Your task to perform on an android device: What is the news today? Image 0: 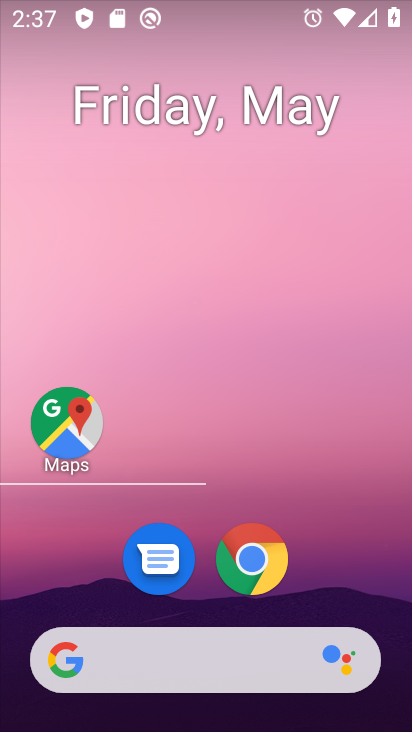
Step 0: drag from (338, 593) to (312, 267)
Your task to perform on an android device: What is the news today? Image 1: 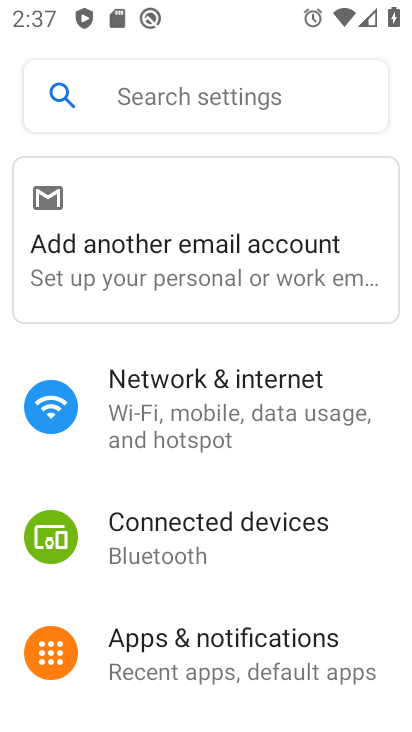
Step 1: press home button
Your task to perform on an android device: What is the news today? Image 2: 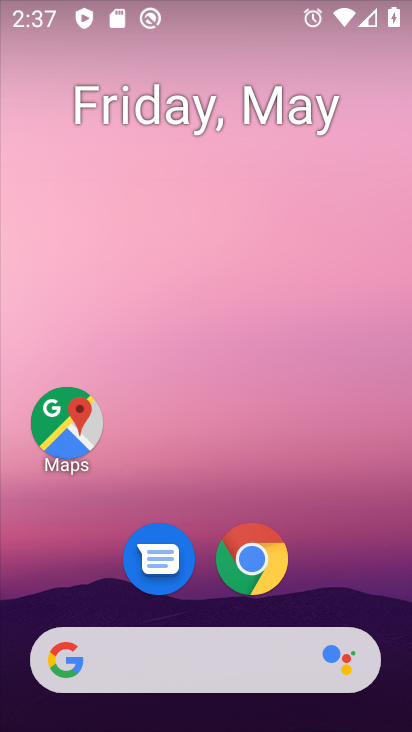
Step 2: drag from (334, 618) to (315, 230)
Your task to perform on an android device: What is the news today? Image 3: 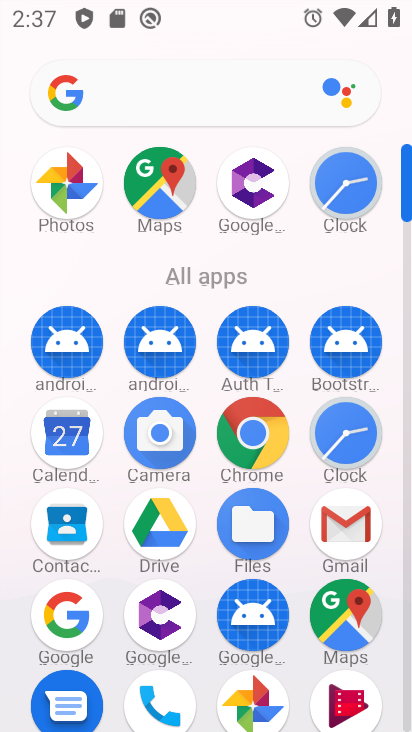
Step 3: click (402, 639)
Your task to perform on an android device: What is the news today? Image 4: 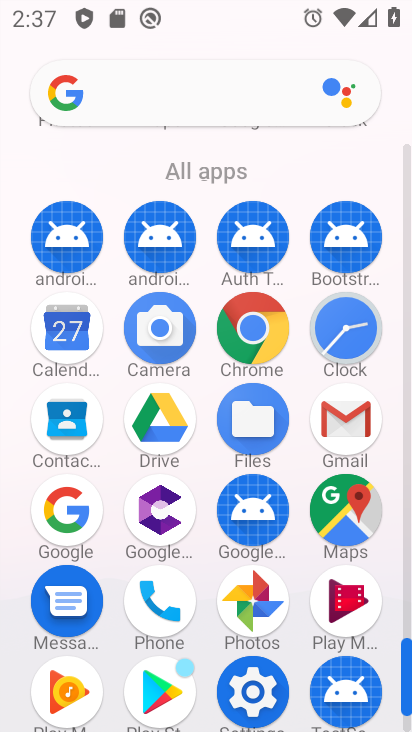
Step 4: click (412, 704)
Your task to perform on an android device: What is the news today? Image 5: 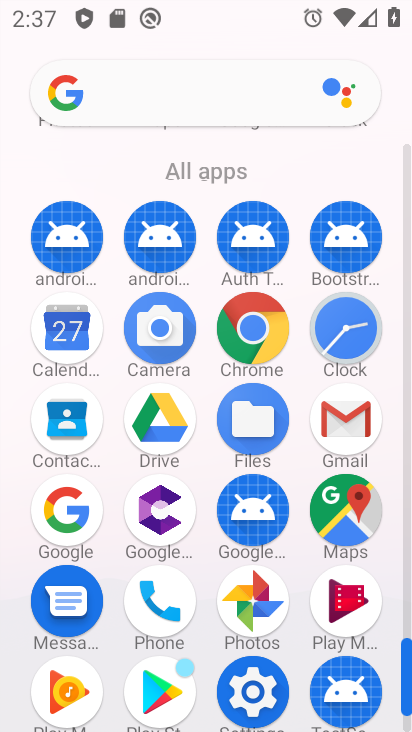
Step 5: drag from (409, 679) to (390, 711)
Your task to perform on an android device: What is the news today? Image 6: 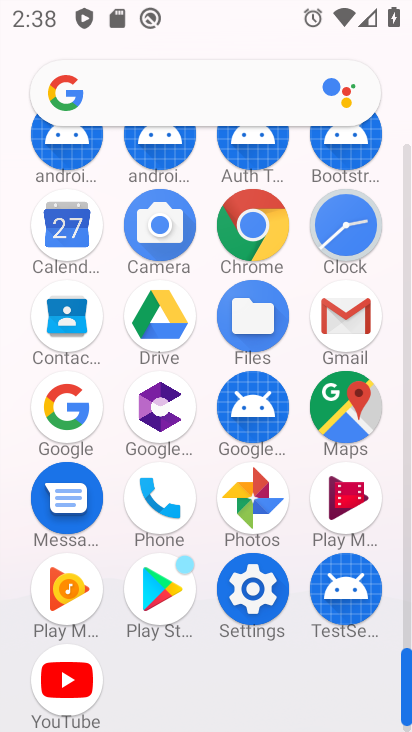
Step 6: click (188, 107)
Your task to perform on an android device: What is the news today? Image 7: 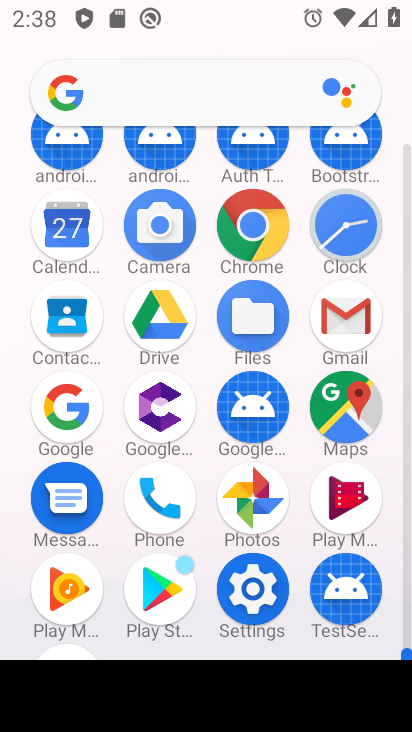
Step 7: click (188, 107)
Your task to perform on an android device: What is the news today? Image 8: 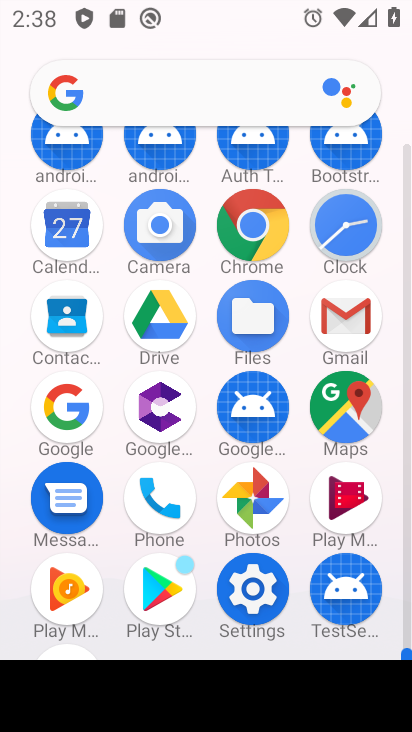
Step 8: click (172, 91)
Your task to perform on an android device: What is the news today? Image 9: 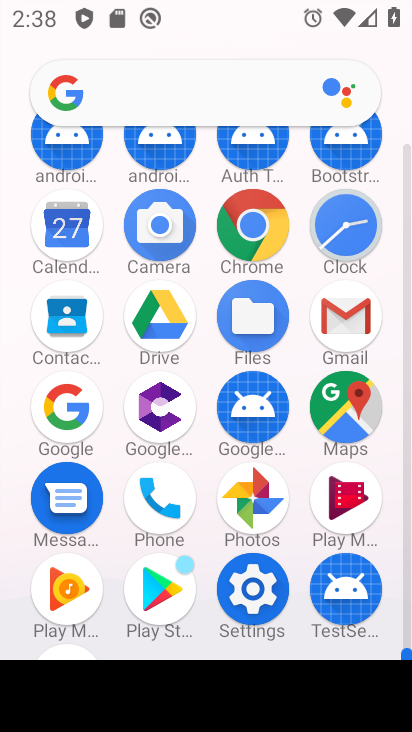
Step 9: task complete